Your task to perform on an android device: turn on showing notifications on the lock screen Image 0: 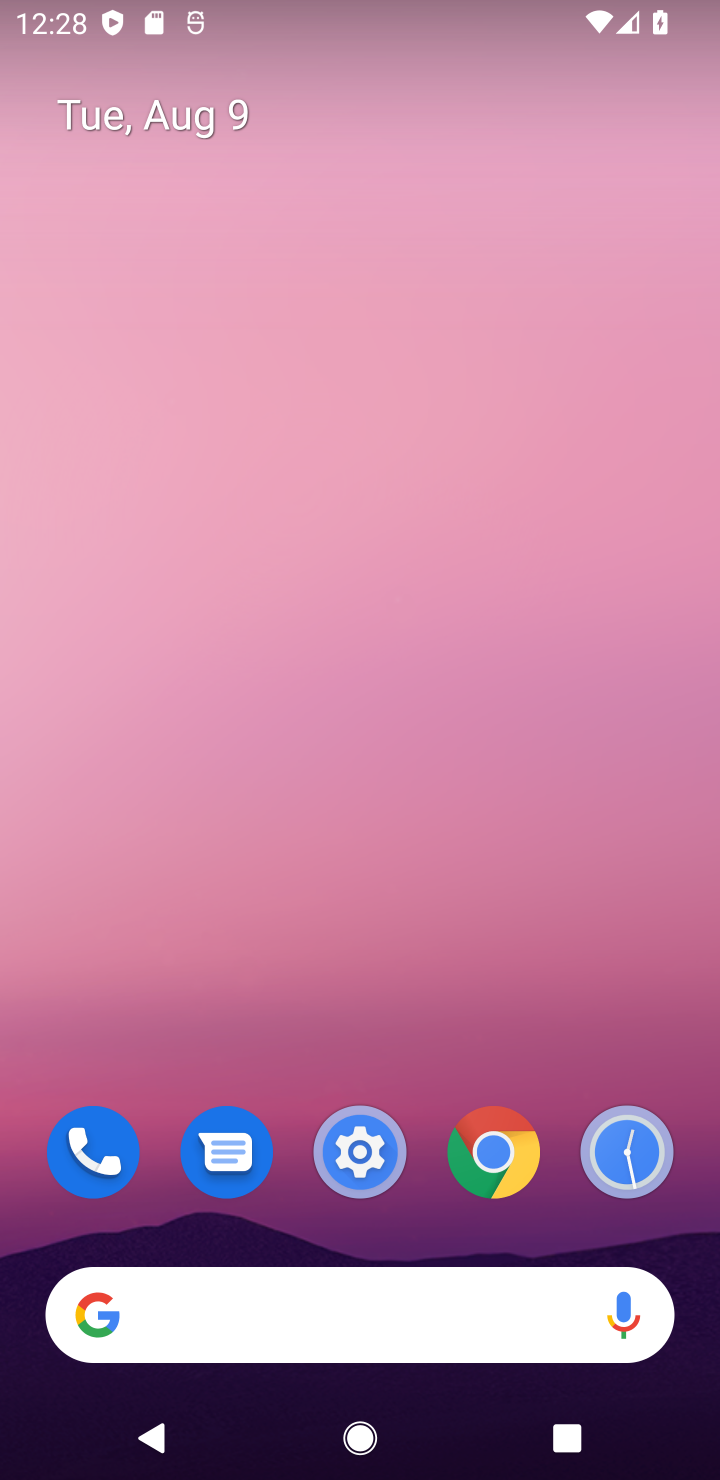
Step 0: drag from (429, 1095) to (346, 171)
Your task to perform on an android device: turn on showing notifications on the lock screen Image 1: 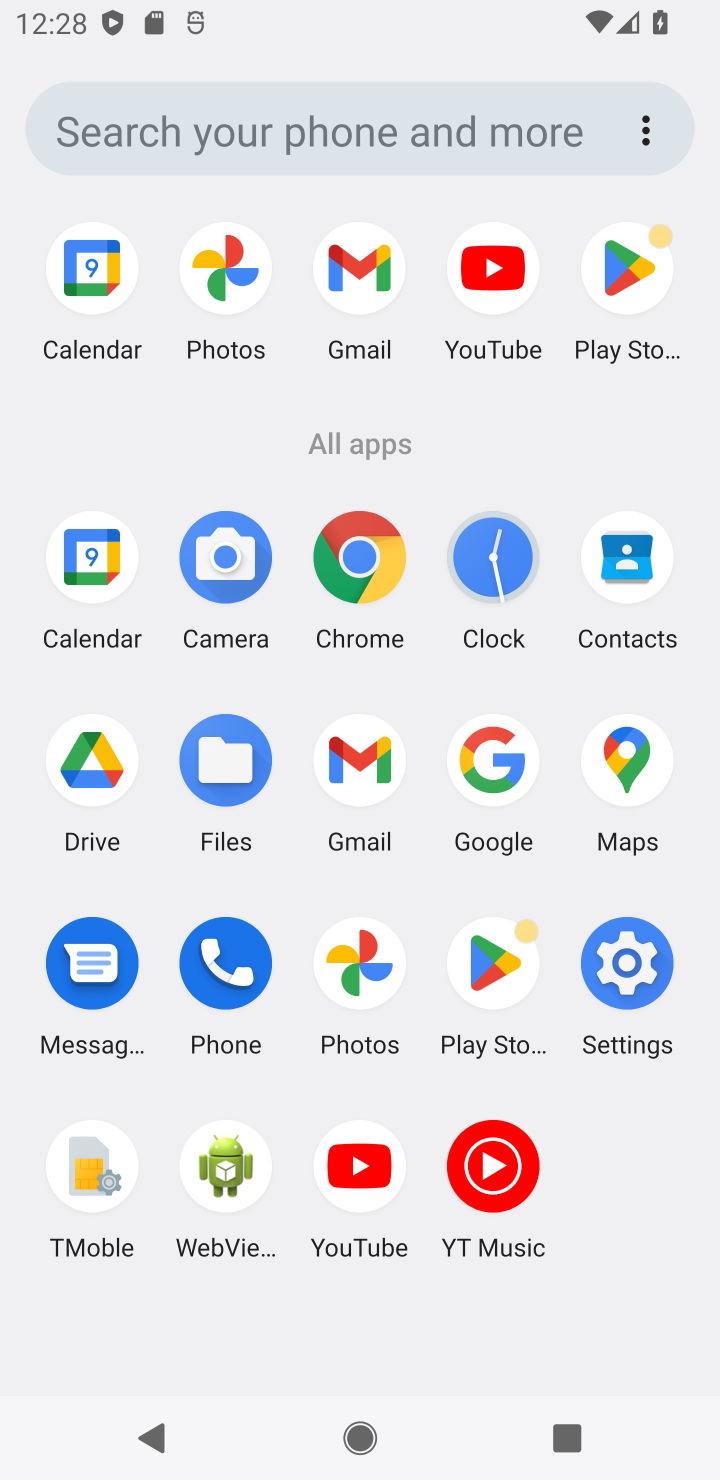
Step 1: click (647, 972)
Your task to perform on an android device: turn on showing notifications on the lock screen Image 2: 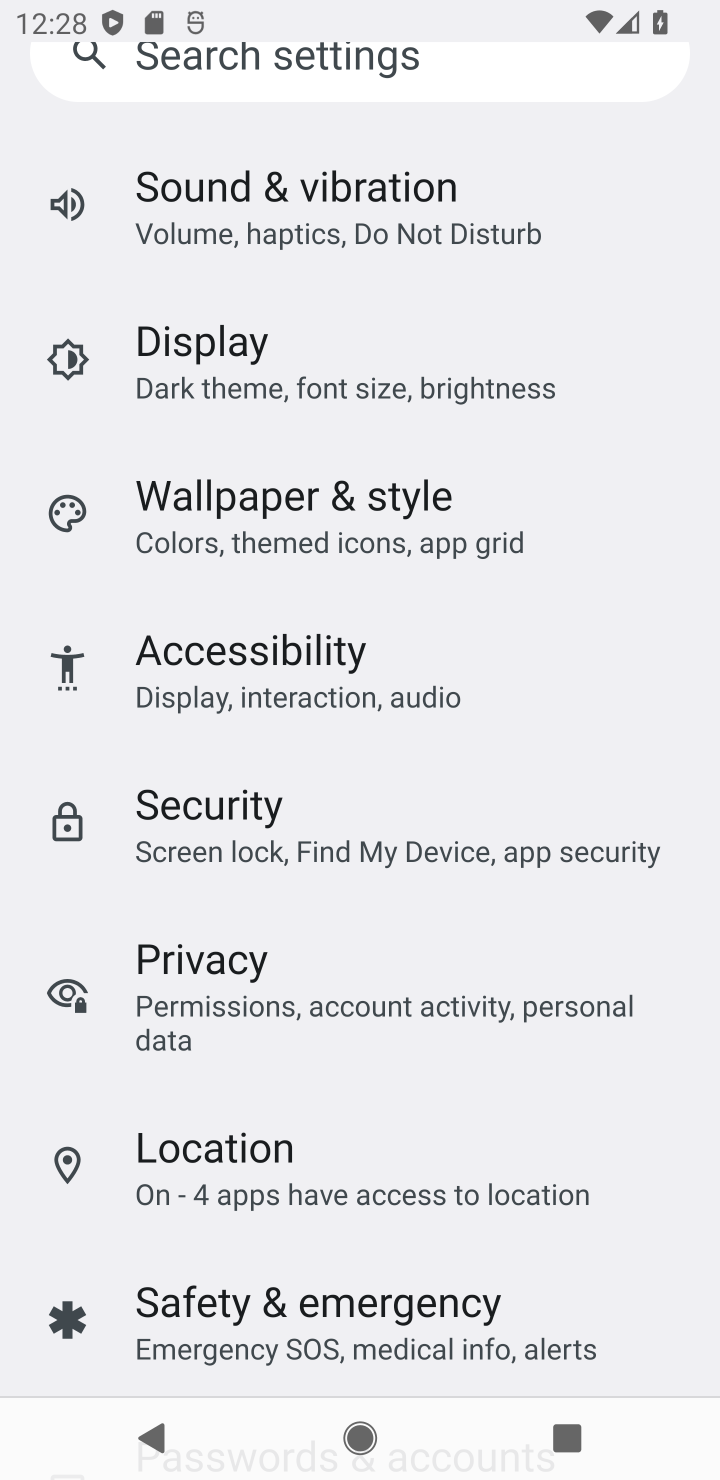
Step 2: drag from (251, 278) to (245, 1038)
Your task to perform on an android device: turn on showing notifications on the lock screen Image 3: 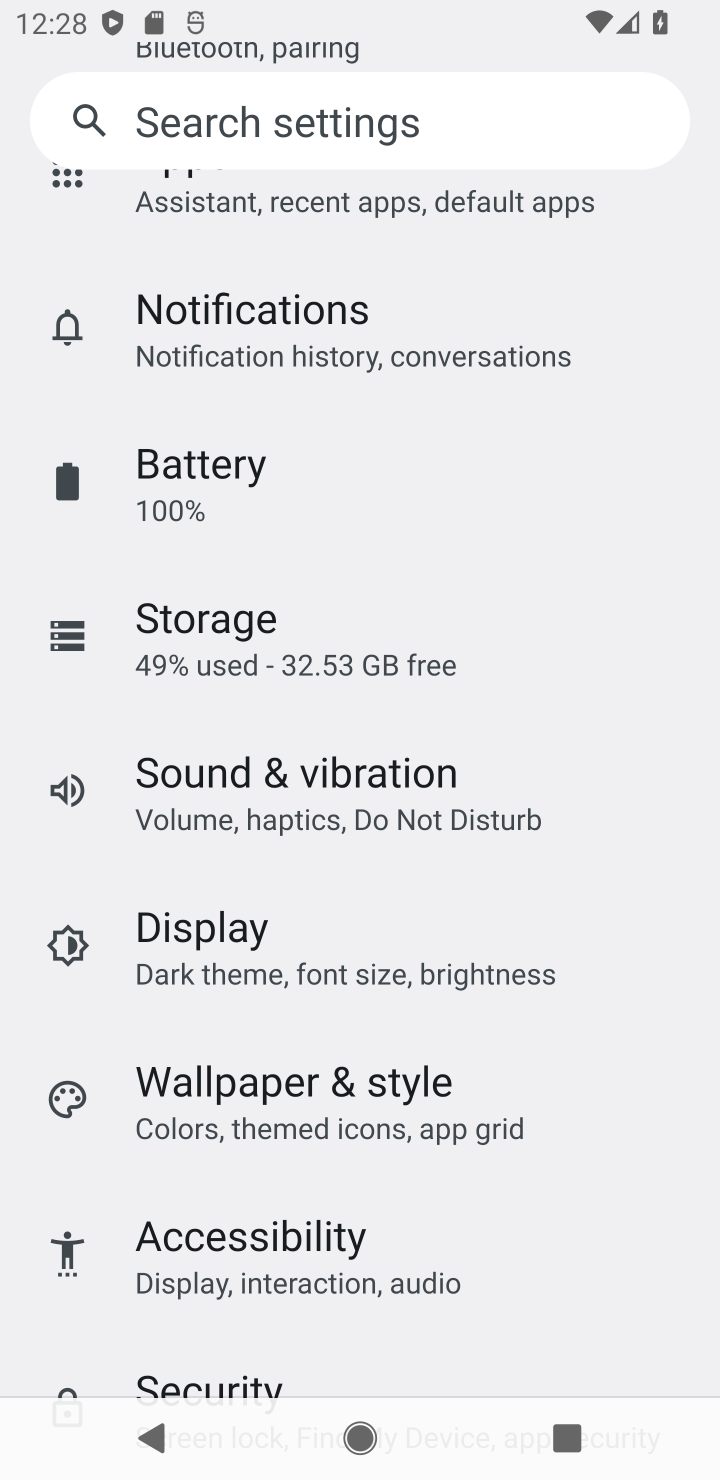
Step 3: click (221, 329)
Your task to perform on an android device: turn on showing notifications on the lock screen Image 4: 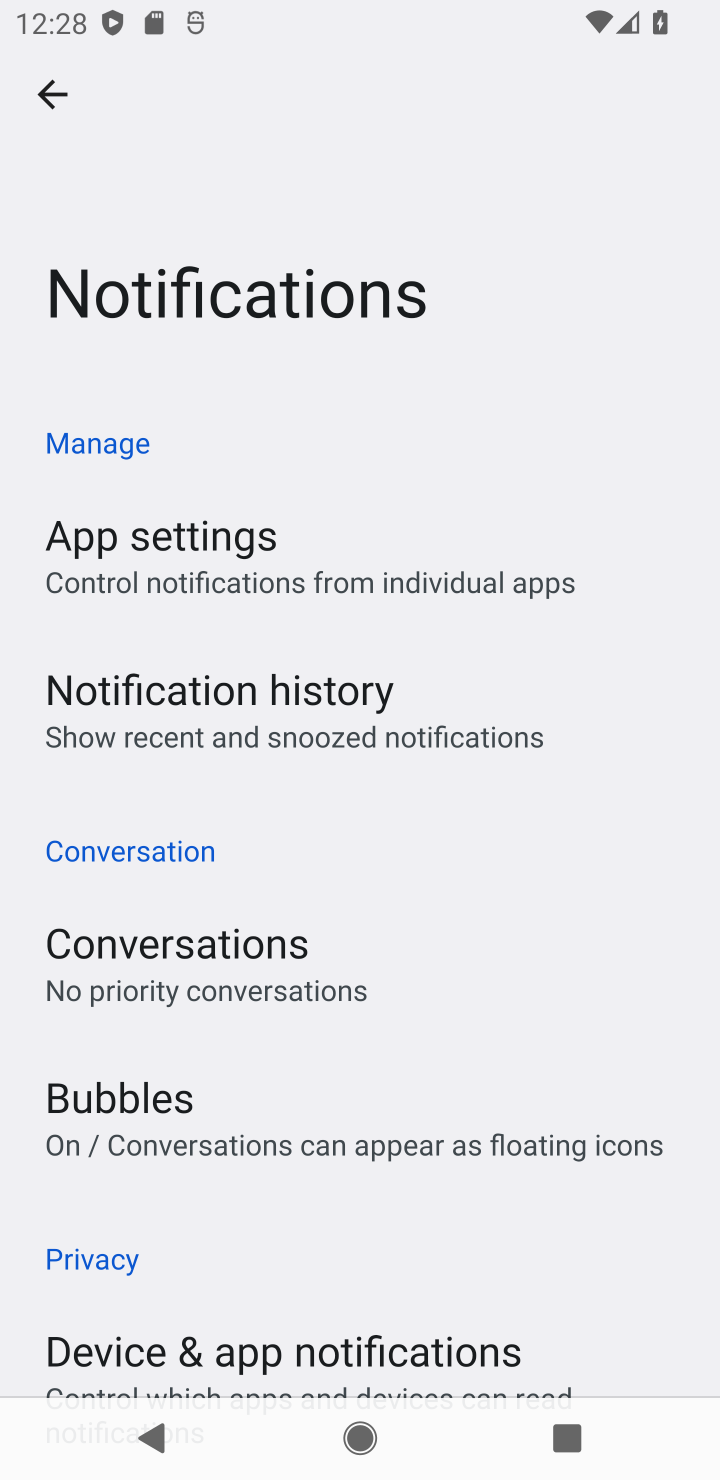
Step 4: drag from (353, 1222) to (296, 701)
Your task to perform on an android device: turn on showing notifications on the lock screen Image 5: 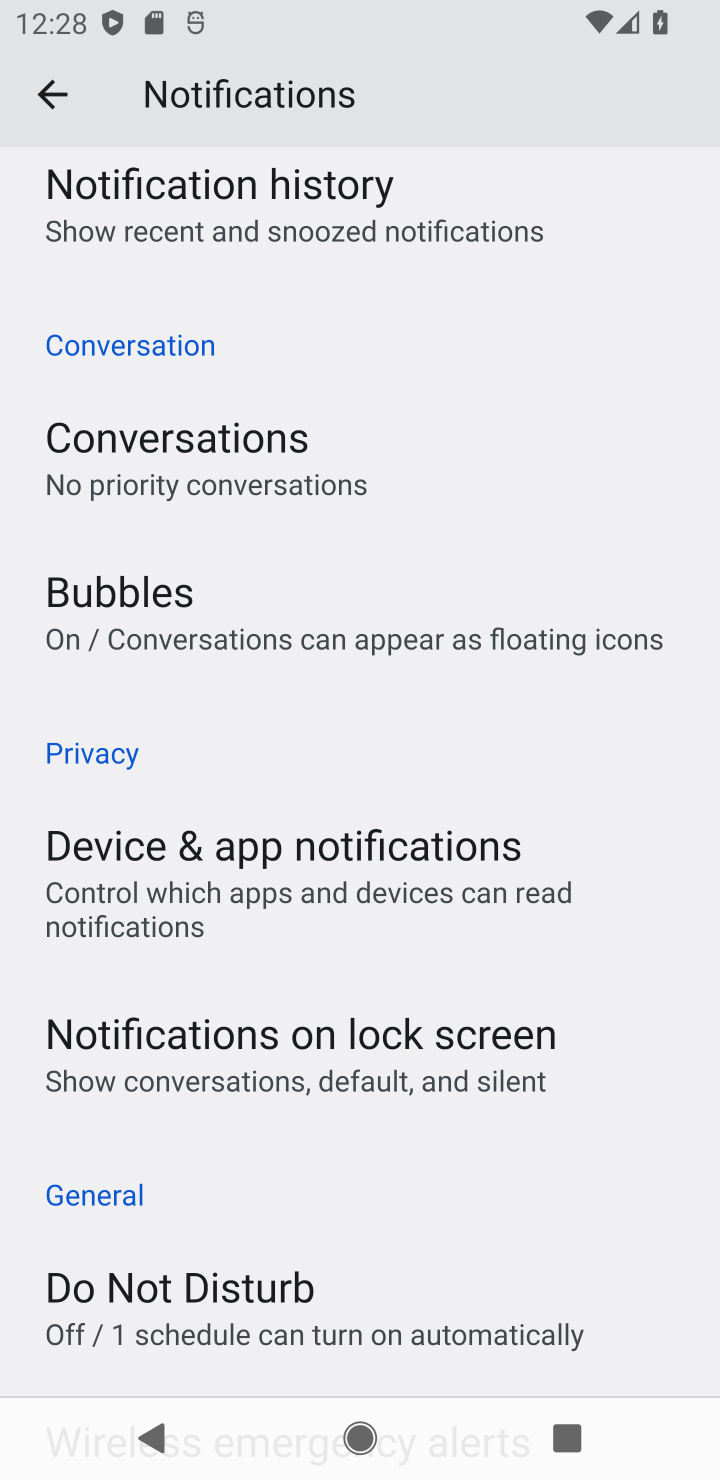
Step 5: click (323, 1063)
Your task to perform on an android device: turn on showing notifications on the lock screen Image 6: 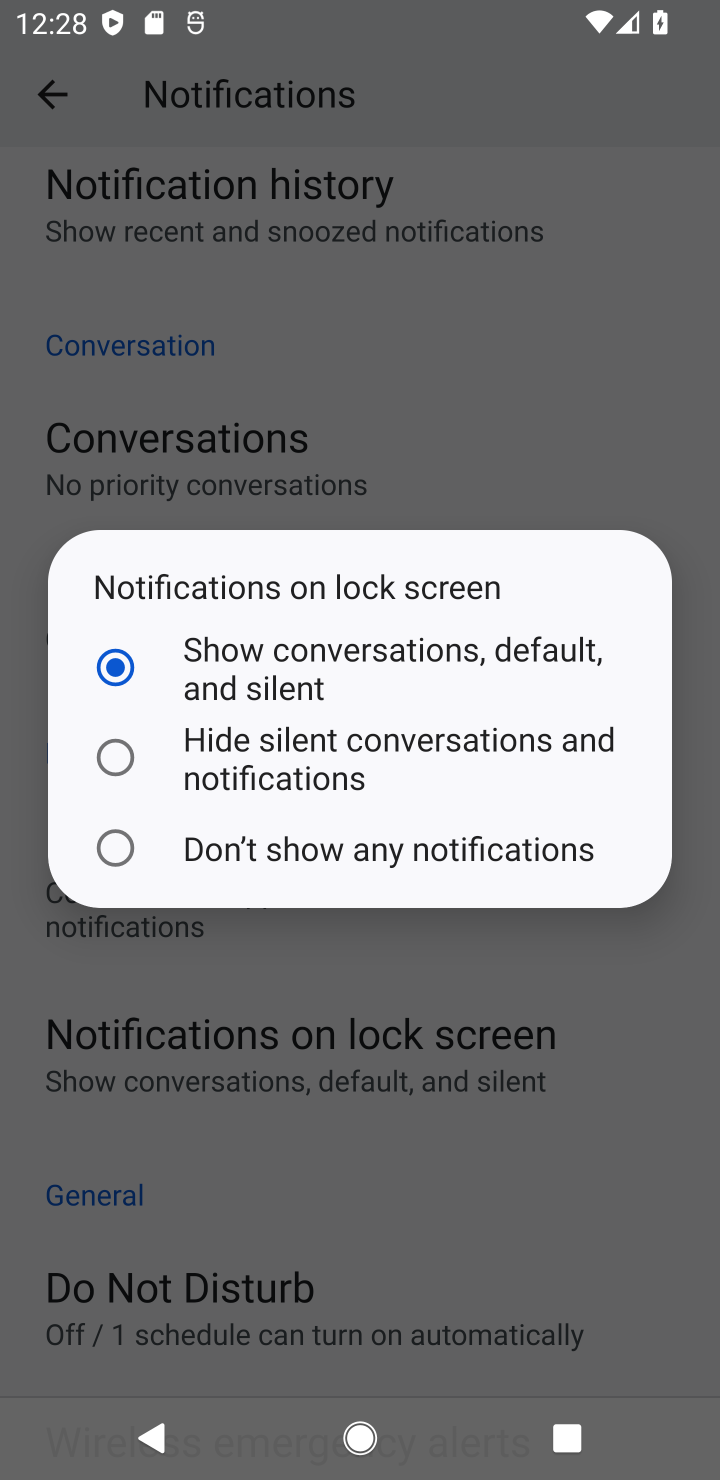
Step 6: task complete